Your task to perform on an android device: open the mobile data screen to see how much data has been used Image 0: 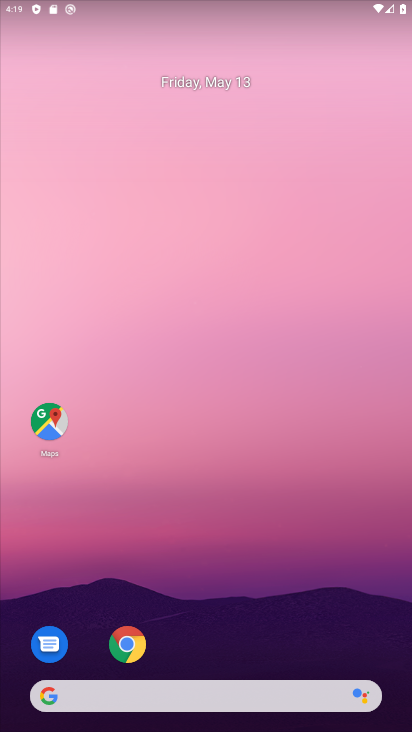
Step 0: drag from (221, 551) to (348, 64)
Your task to perform on an android device: open the mobile data screen to see how much data has been used Image 1: 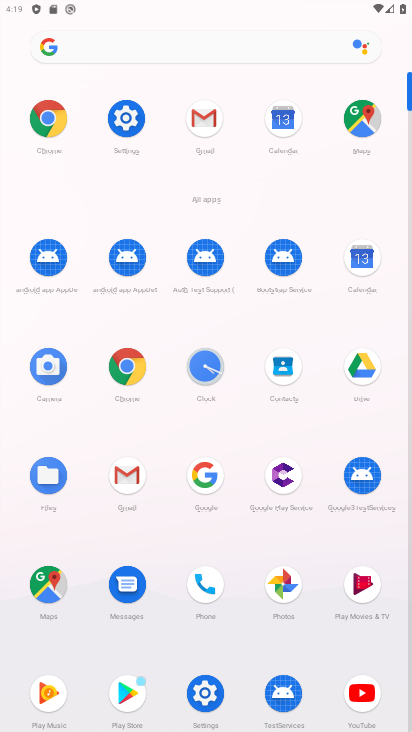
Step 1: click (112, 110)
Your task to perform on an android device: open the mobile data screen to see how much data has been used Image 2: 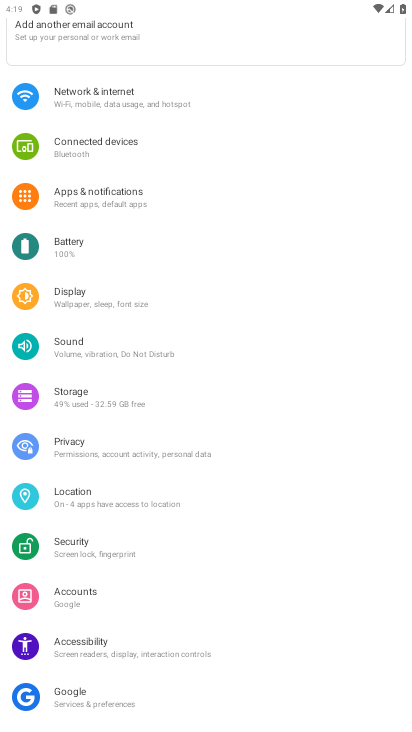
Step 2: click (114, 95)
Your task to perform on an android device: open the mobile data screen to see how much data has been used Image 3: 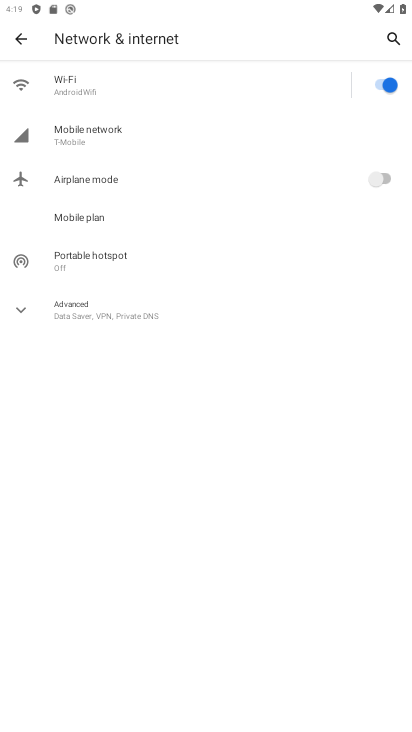
Step 3: click (113, 138)
Your task to perform on an android device: open the mobile data screen to see how much data has been used Image 4: 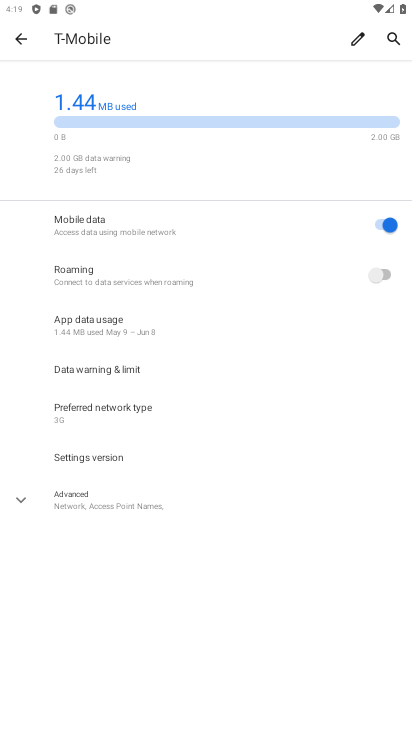
Step 4: click (131, 320)
Your task to perform on an android device: open the mobile data screen to see how much data has been used Image 5: 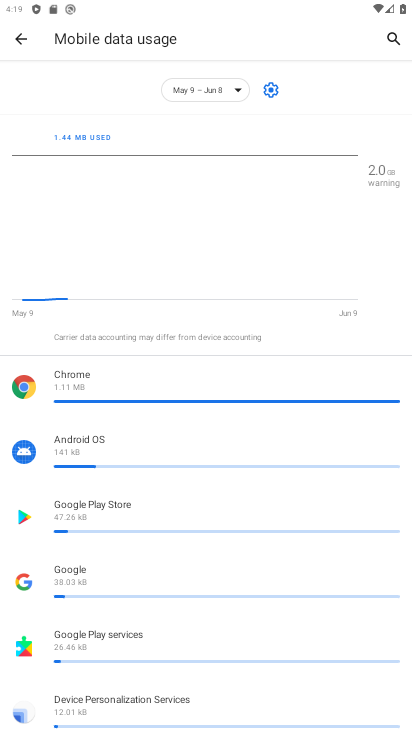
Step 5: task complete